Your task to perform on an android device: open device folders in google photos Image 0: 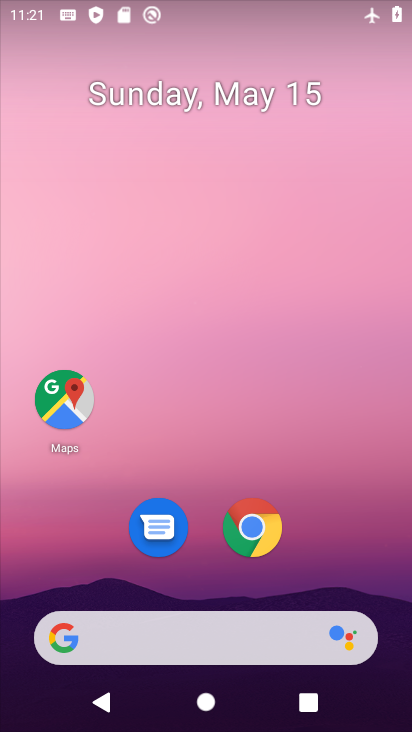
Step 0: drag from (328, 507) to (266, 57)
Your task to perform on an android device: open device folders in google photos Image 1: 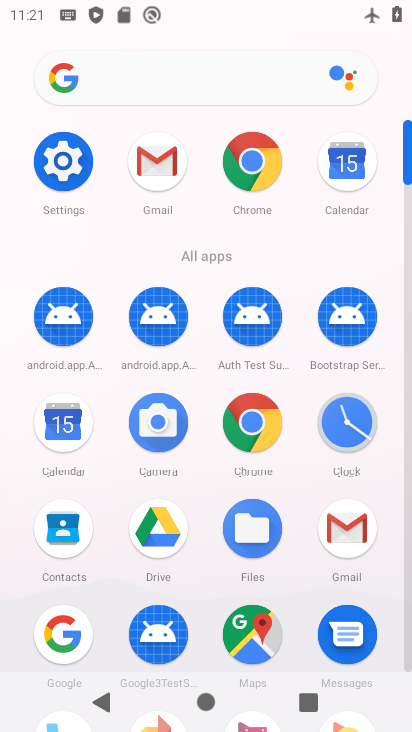
Step 1: drag from (7, 594) to (3, 317)
Your task to perform on an android device: open device folders in google photos Image 2: 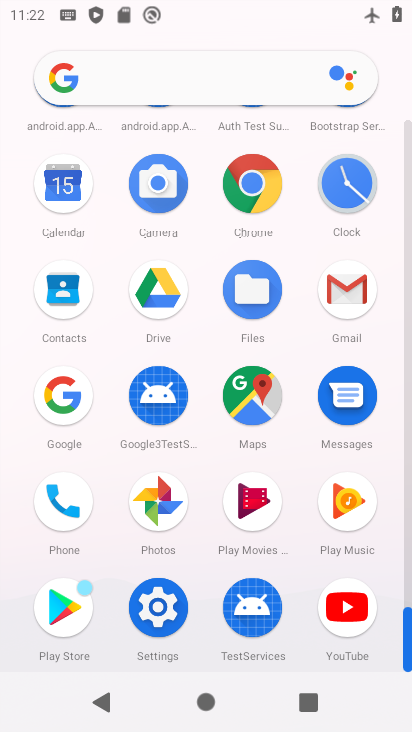
Step 2: click (163, 493)
Your task to perform on an android device: open device folders in google photos Image 3: 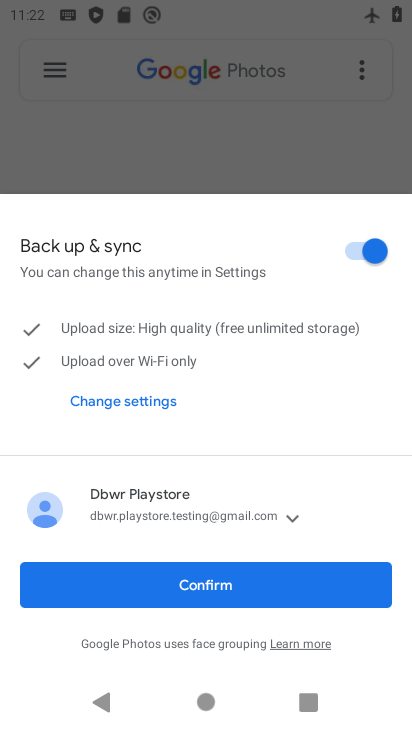
Step 3: click (255, 580)
Your task to perform on an android device: open device folders in google photos Image 4: 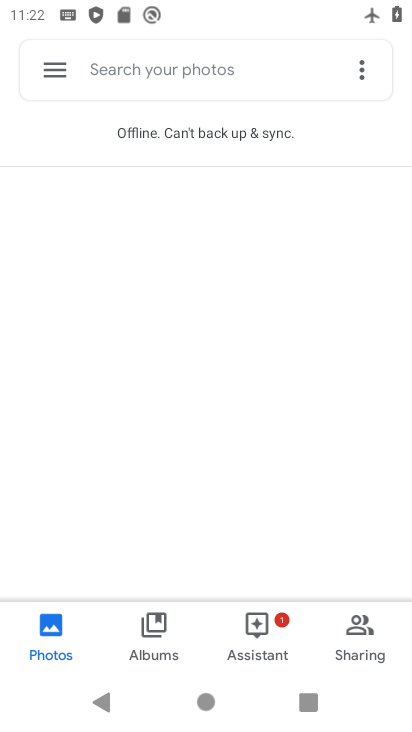
Step 4: click (50, 62)
Your task to perform on an android device: open device folders in google photos Image 5: 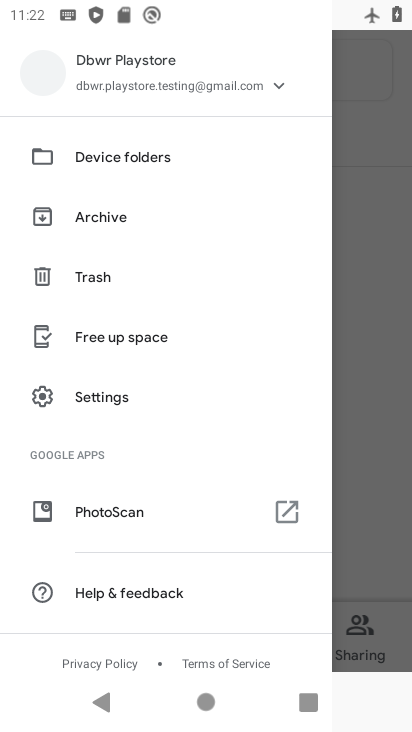
Step 5: click (123, 164)
Your task to perform on an android device: open device folders in google photos Image 6: 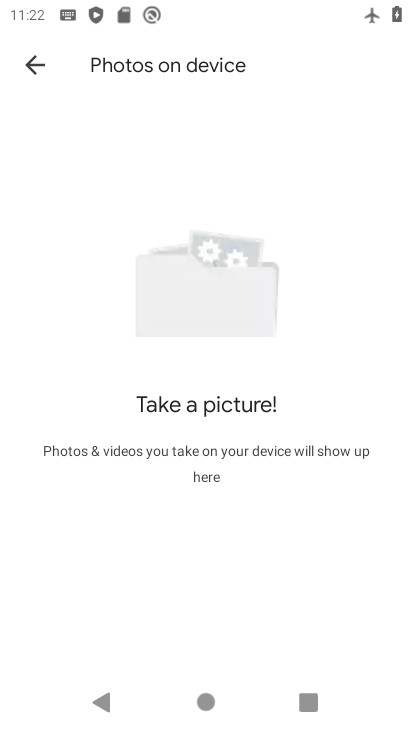
Step 6: task complete